Your task to perform on an android device: open chrome and create a bookmark for the current page Image 0: 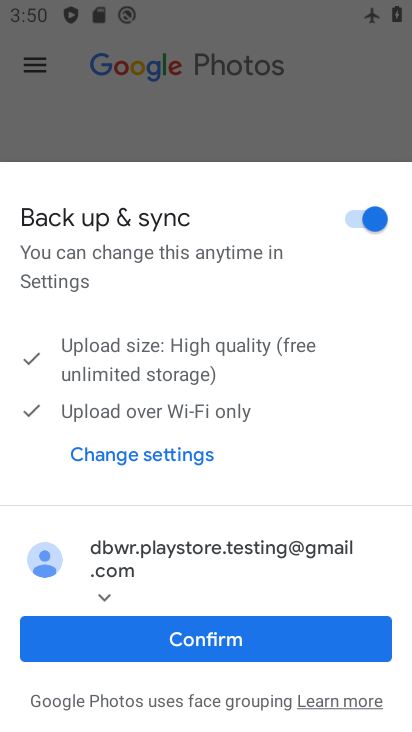
Step 0: press home button
Your task to perform on an android device: open chrome and create a bookmark for the current page Image 1: 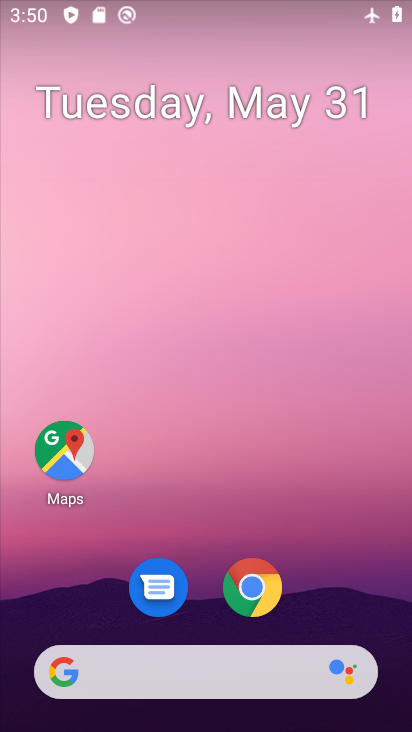
Step 1: click (253, 586)
Your task to perform on an android device: open chrome and create a bookmark for the current page Image 2: 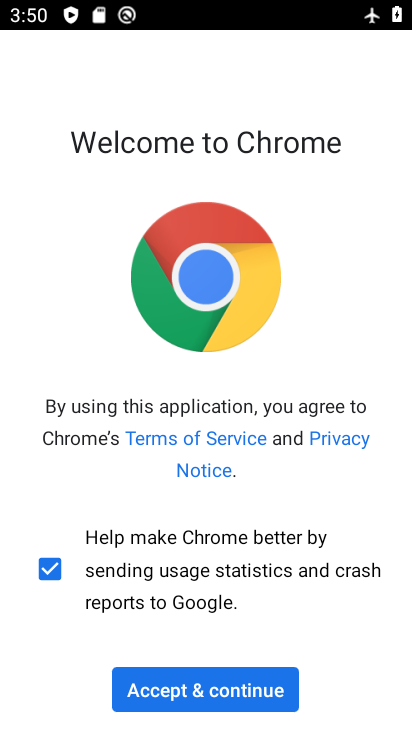
Step 2: click (254, 701)
Your task to perform on an android device: open chrome and create a bookmark for the current page Image 3: 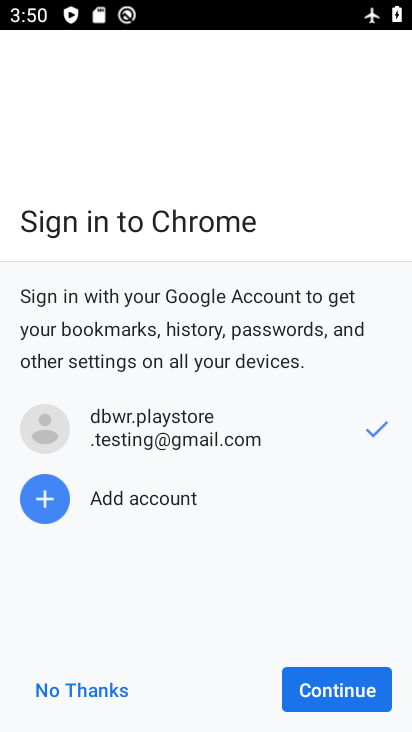
Step 3: click (364, 693)
Your task to perform on an android device: open chrome and create a bookmark for the current page Image 4: 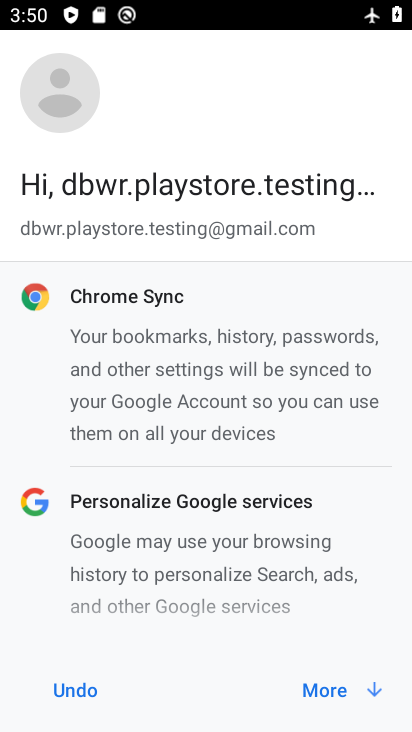
Step 4: click (364, 693)
Your task to perform on an android device: open chrome and create a bookmark for the current page Image 5: 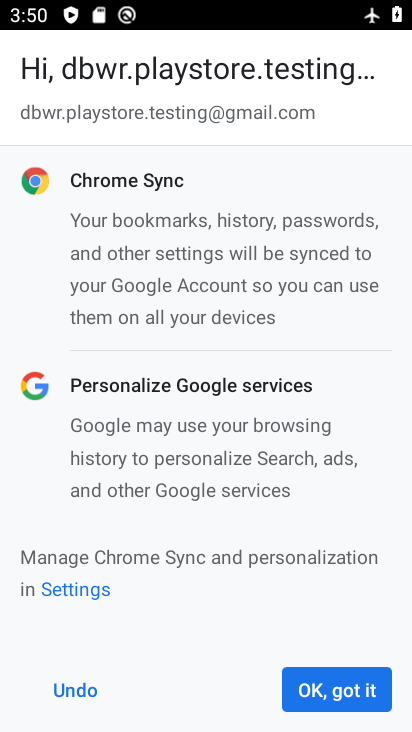
Step 5: click (364, 693)
Your task to perform on an android device: open chrome and create a bookmark for the current page Image 6: 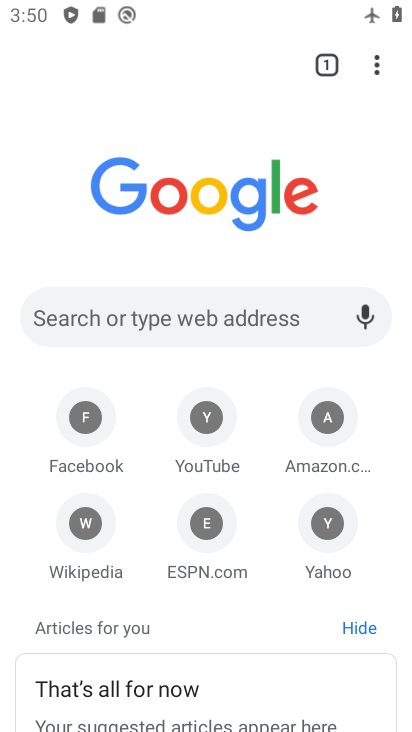
Step 6: task complete